Your task to perform on an android device: Open calendar and show me the fourth week of next month Image 0: 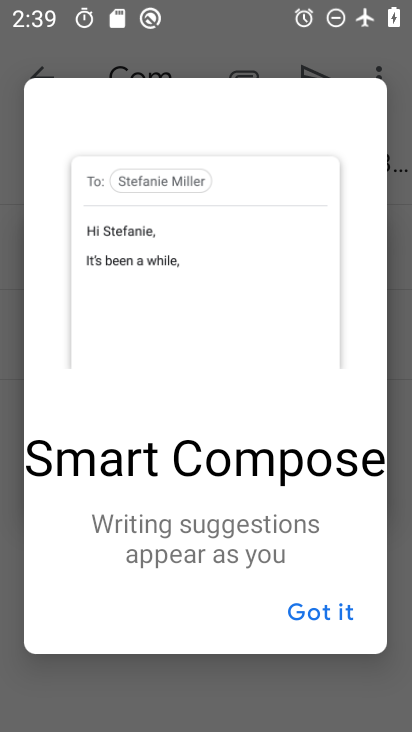
Step 0: press home button
Your task to perform on an android device: Open calendar and show me the fourth week of next month Image 1: 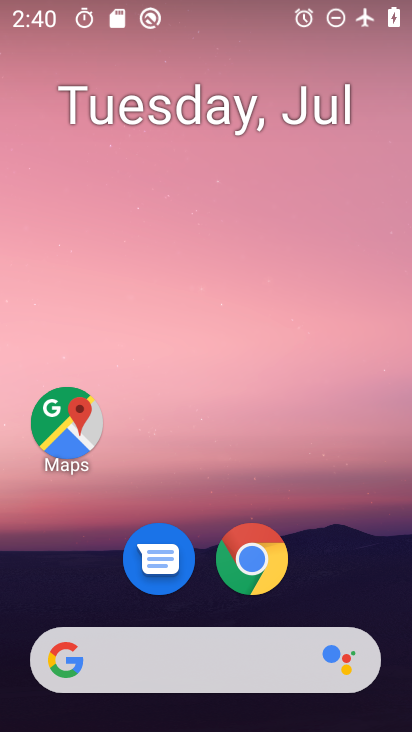
Step 1: drag from (333, 578) to (364, 130)
Your task to perform on an android device: Open calendar and show me the fourth week of next month Image 2: 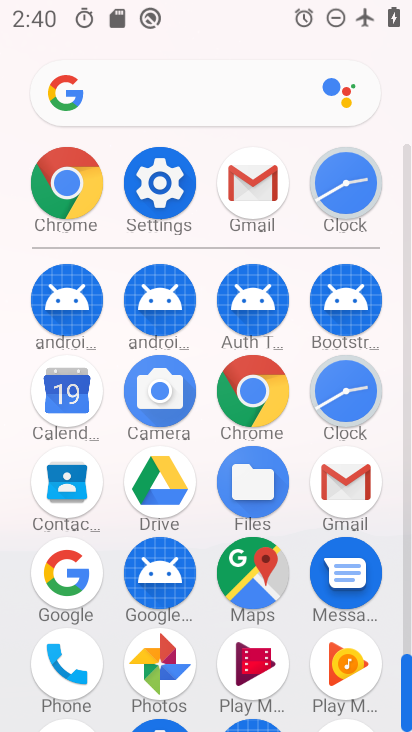
Step 2: click (76, 399)
Your task to perform on an android device: Open calendar and show me the fourth week of next month Image 3: 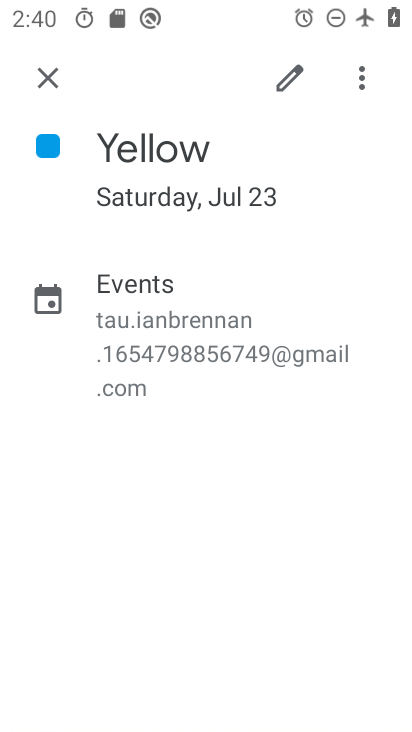
Step 3: press back button
Your task to perform on an android device: Open calendar and show me the fourth week of next month Image 4: 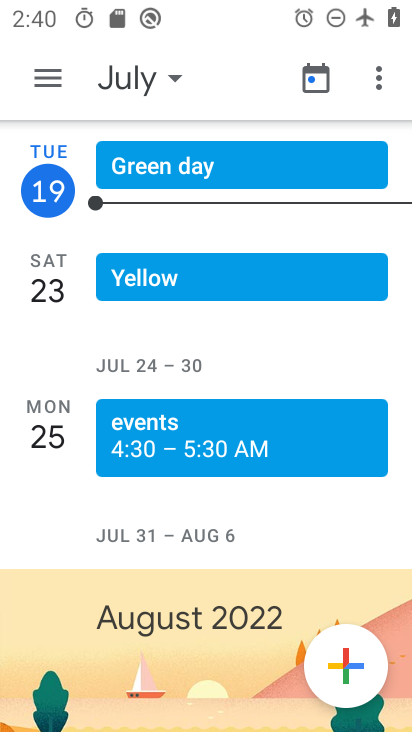
Step 4: click (181, 76)
Your task to perform on an android device: Open calendar and show me the fourth week of next month Image 5: 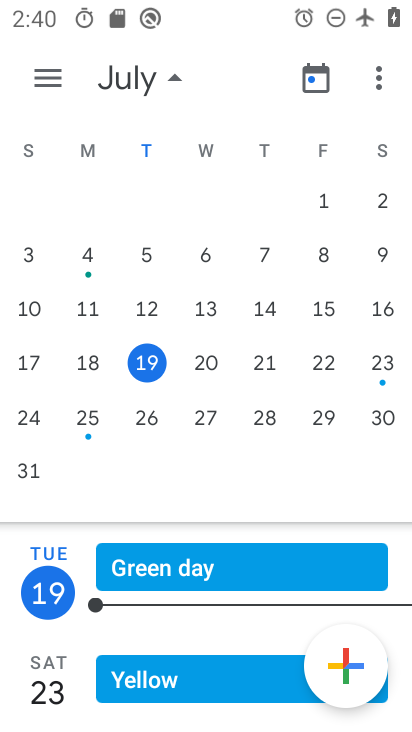
Step 5: drag from (389, 226) to (4, 182)
Your task to perform on an android device: Open calendar and show me the fourth week of next month Image 6: 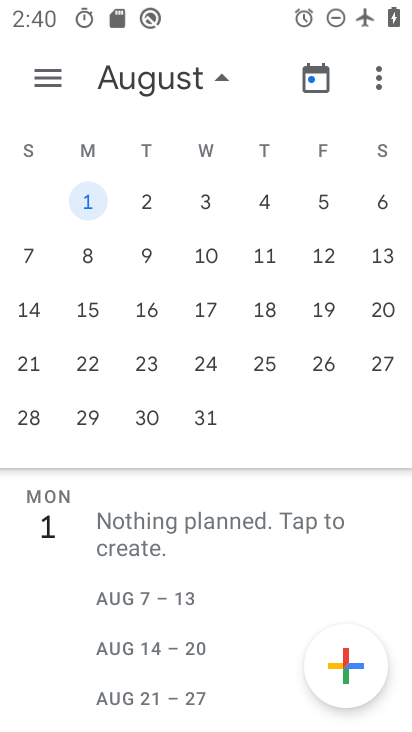
Step 6: click (79, 352)
Your task to perform on an android device: Open calendar and show me the fourth week of next month Image 7: 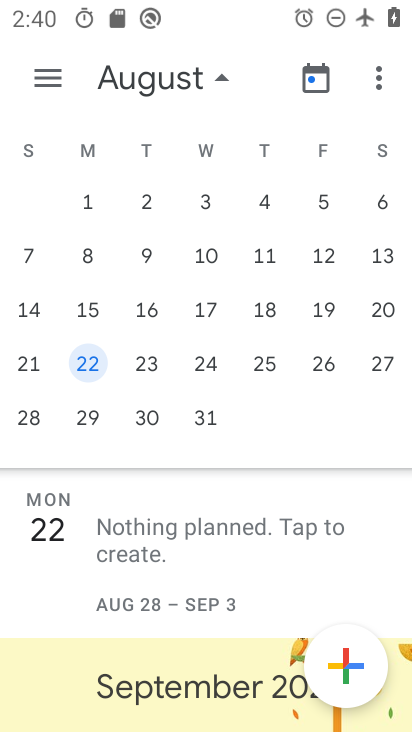
Step 7: task complete